Your task to perform on an android device: What is the news today? Image 0: 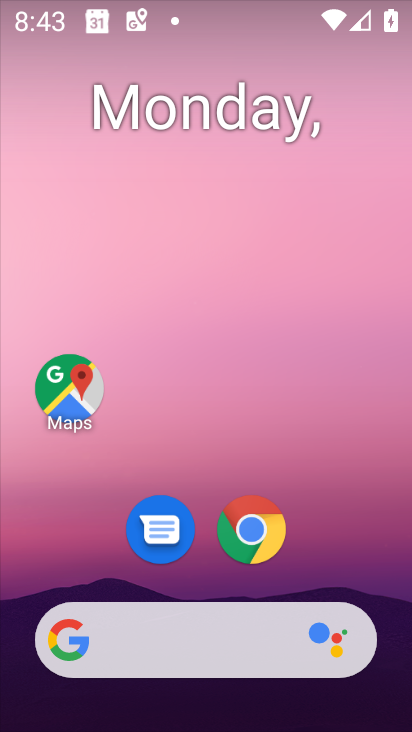
Step 0: click (105, 640)
Your task to perform on an android device: What is the news today? Image 1: 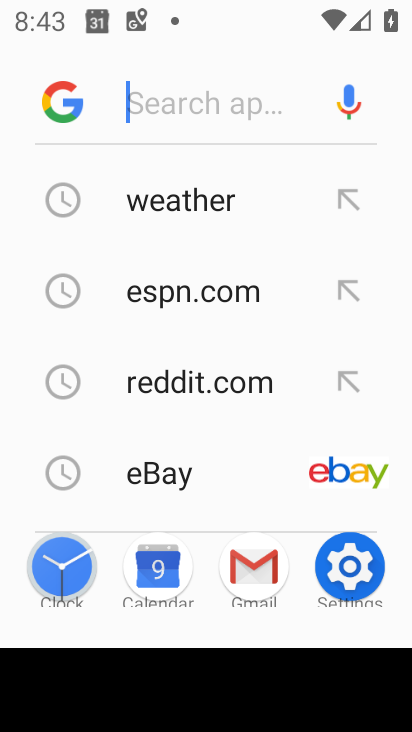
Step 1: click (207, 97)
Your task to perform on an android device: What is the news today? Image 2: 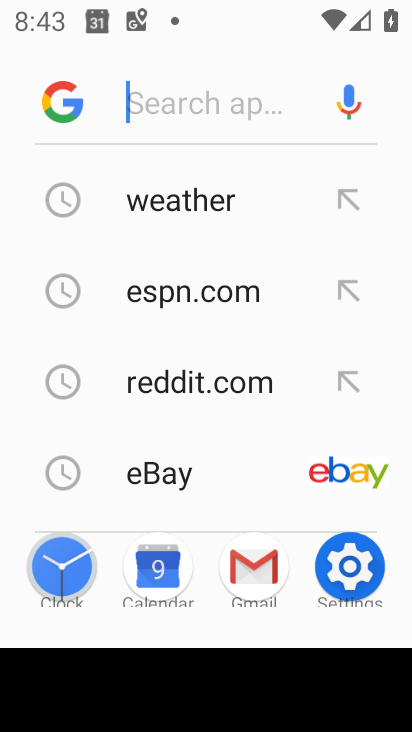
Step 2: type " news"
Your task to perform on an android device: What is the news today? Image 3: 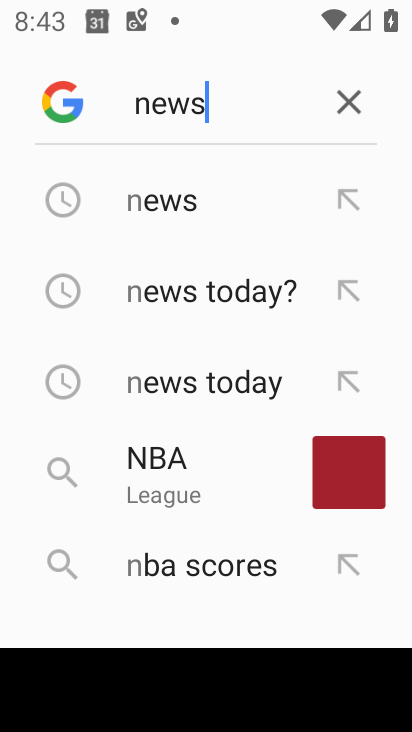
Step 3: type ""
Your task to perform on an android device: What is the news today? Image 4: 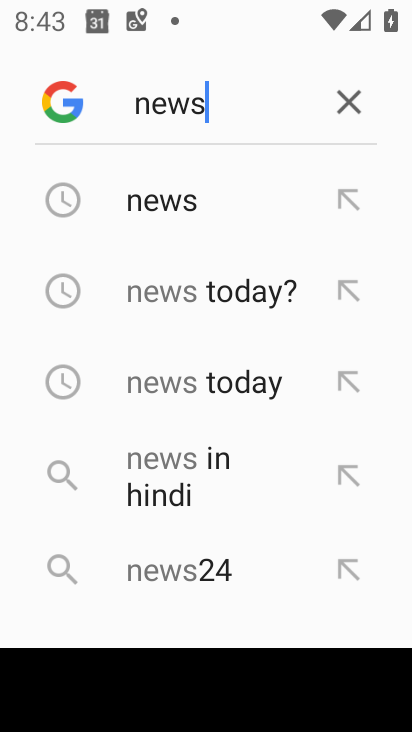
Step 4: click (134, 278)
Your task to perform on an android device: What is the news today? Image 5: 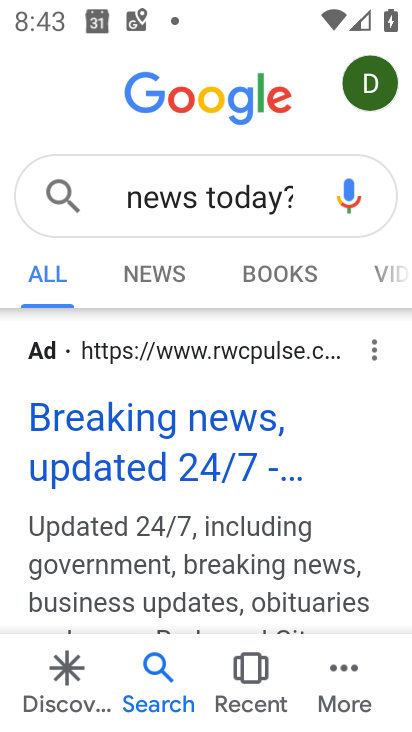
Step 5: task complete